Your task to perform on an android device: turn on translation in the chrome app Image 0: 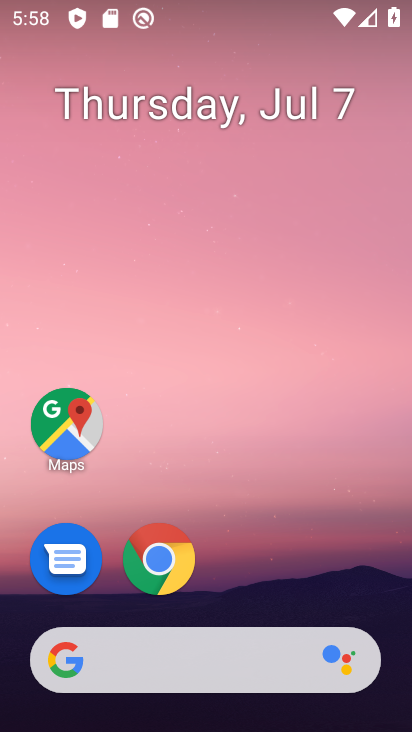
Step 0: click (167, 562)
Your task to perform on an android device: turn on translation in the chrome app Image 1: 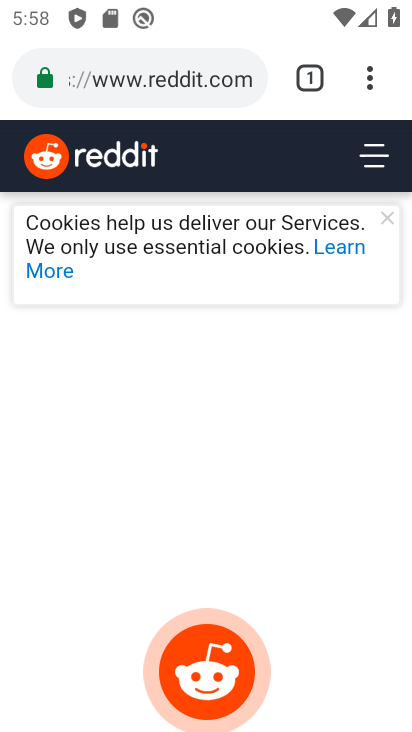
Step 1: click (369, 88)
Your task to perform on an android device: turn on translation in the chrome app Image 2: 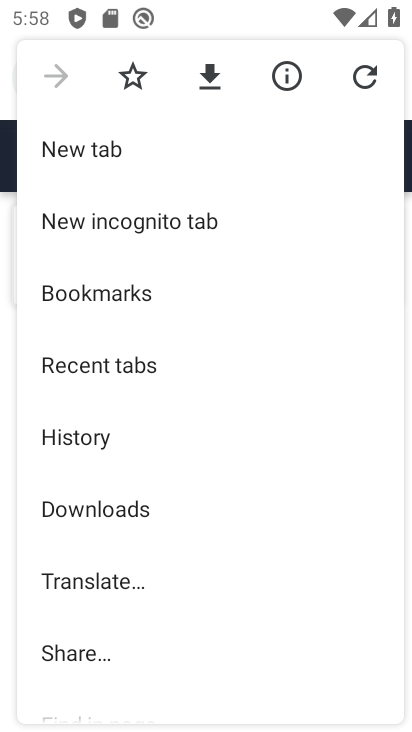
Step 2: click (162, 623)
Your task to perform on an android device: turn on translation in the chrome app Image 3: 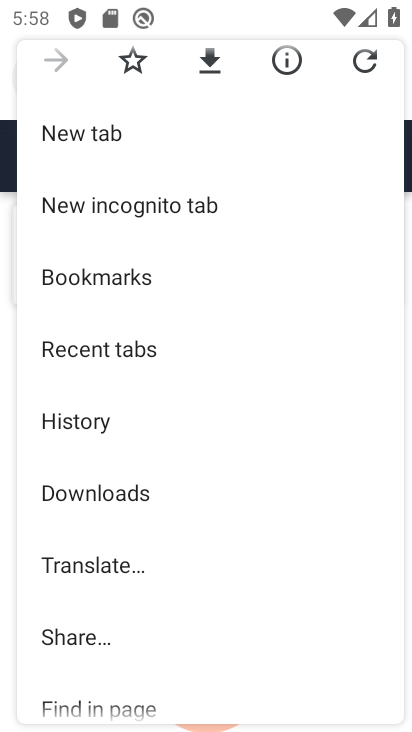
Step 3: click (114, 572)
Your task to perform on an android device: turn on translation in the chrome app Image 4: 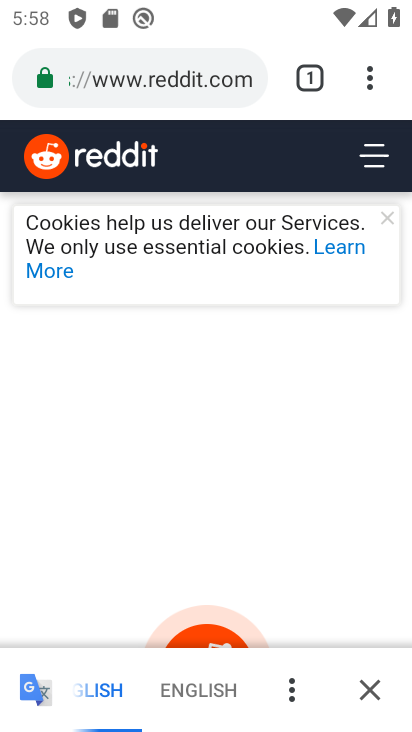
Step 4: click (282, 692)
Your task to perform on an android device: turn on translation in the chrome app Image 5: 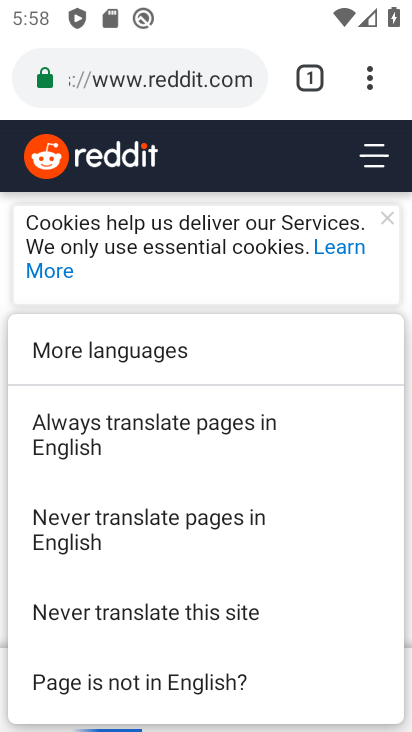
Step 5: click (229, 445)
Your task to perform on an android device: turn on translation in the chrome app Image 6: 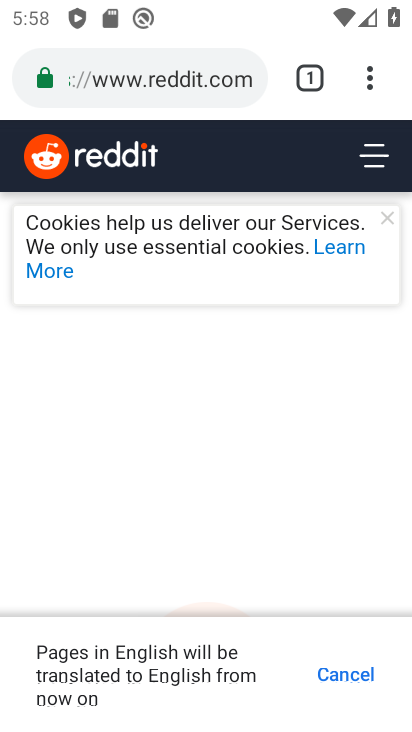
Step 6: task complete